Your task to perform on an android device: allow notifications from all sites in the chrome app Image 0: 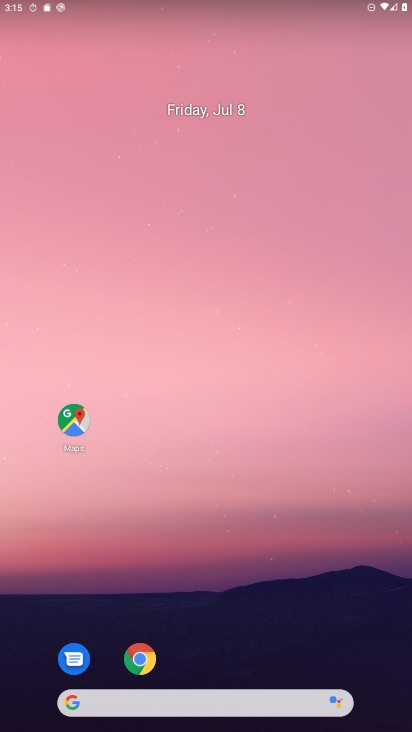
Step 0: click (135, 654)
Your task to perform on an android device: allow notifications from all sites in the chrome app Image 1: 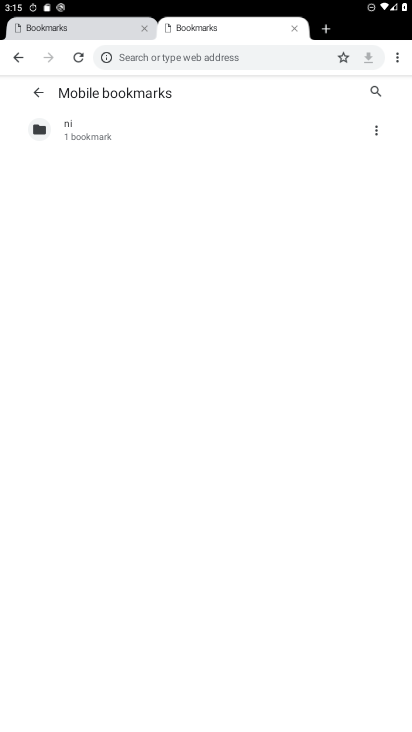
Step 1: click (394, 55)
Your task to perform on an android device: allow notifications from all sites in the chrome app Image 2: 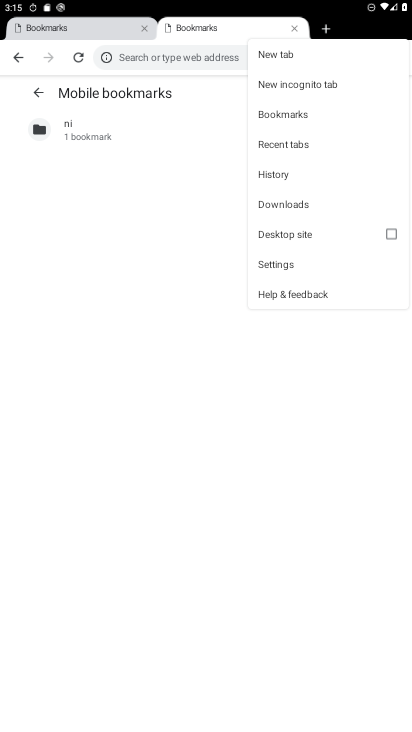
Step 2: click (281, 261)
Your task to perform on an android device: allow notifications from all sites in the chrome app Image 3: 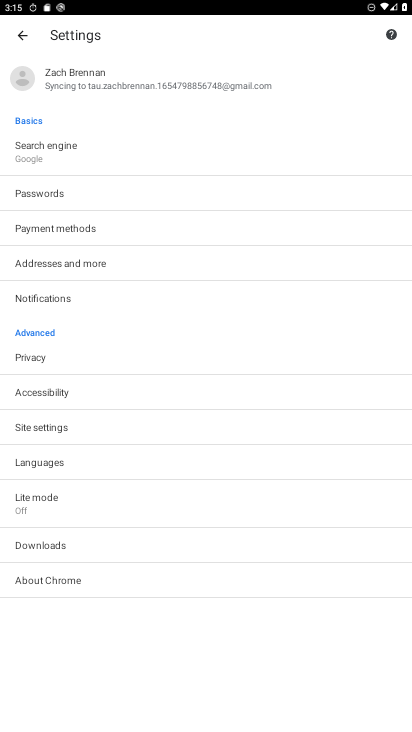
Step 3: click (41, 423)
Your task to perform on an android device: allow notifications from all sites in the chrome app Image 4: 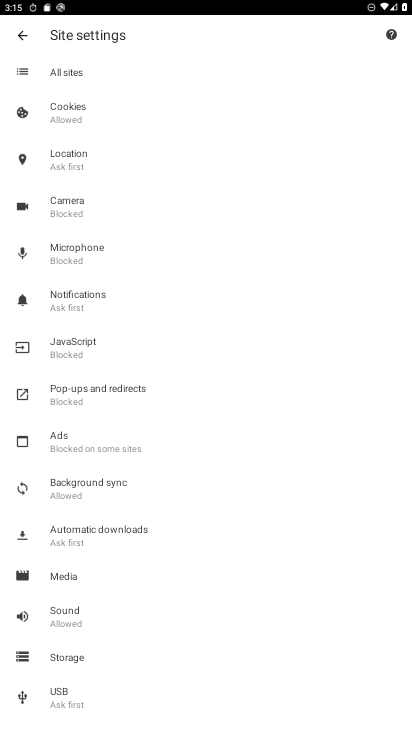
Step 4: click (37, 109)
Your task to perform on an android device: allow notifications from all sites in the chrome app Image 5: 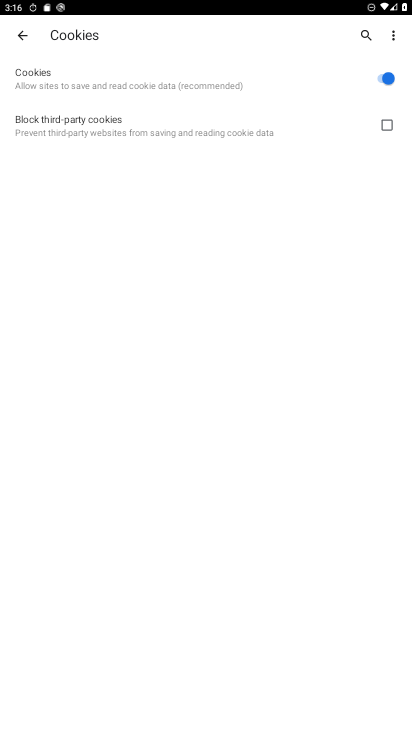
Step 5: task complete